Your task to perform on an android device: Turn off the flashlight Image 0: 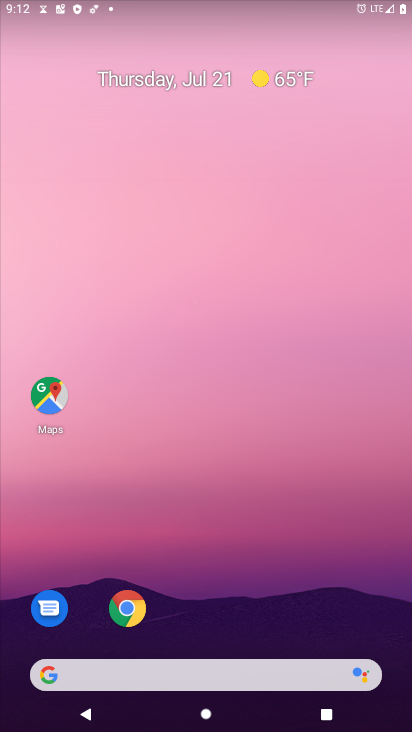
Step 0: drag from (230, 653) to (250, 233)
Your task to perform on an android device: Turn off the flashlight Image 1: 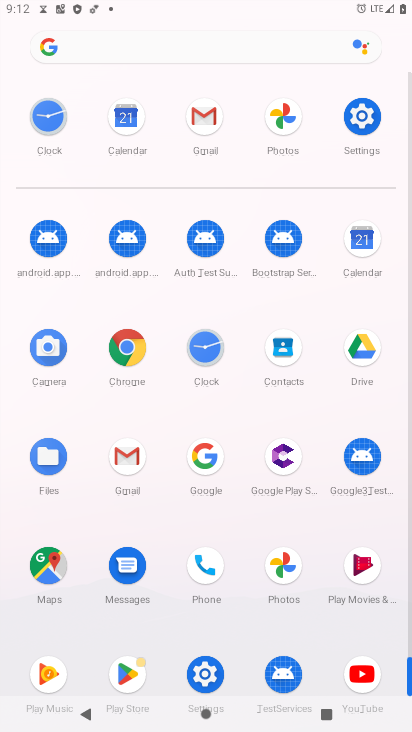
Step 1: click (358, 110)
Your task to perform on an android device: Turn off the flashlight Image 2: 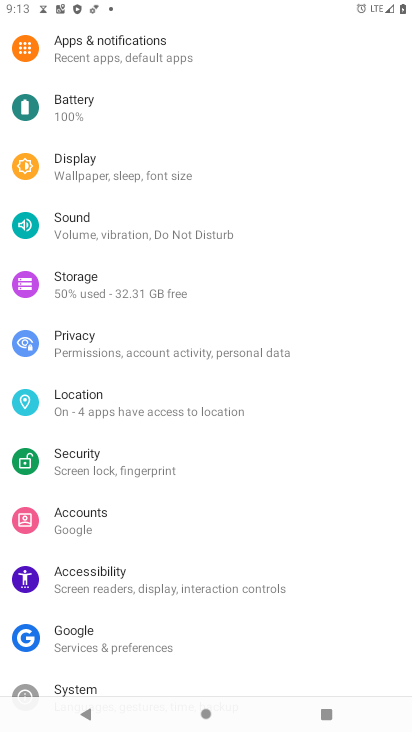
Step 2: click (116, 294)
Your task to perform on an android device: Turn off the flashlight Image 3: 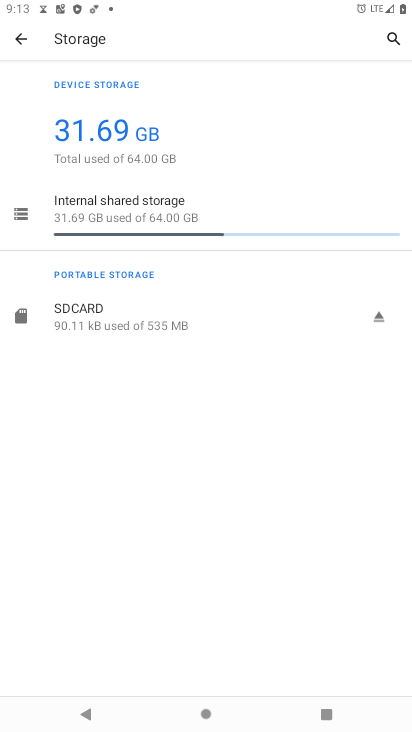
Step 3: press back button
Your task to perform on an android device: Turn off the flashlight Image 4: 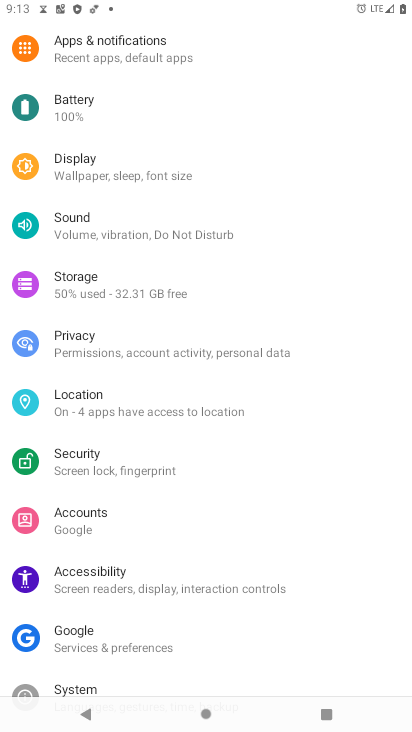
Step 4: click (140, 240)
Your task to perform on an android device: Turn off the flashlight Image 5: 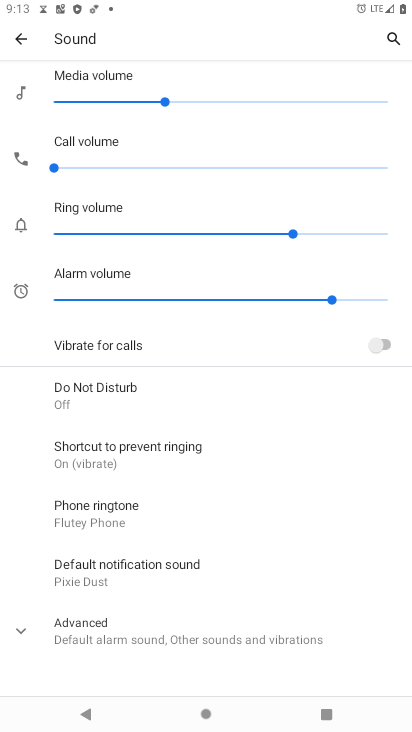
Step 5: drag from (167, 445) to (216, 363)
Your task to perform on an android device: Turn off the flashlight Image 6: 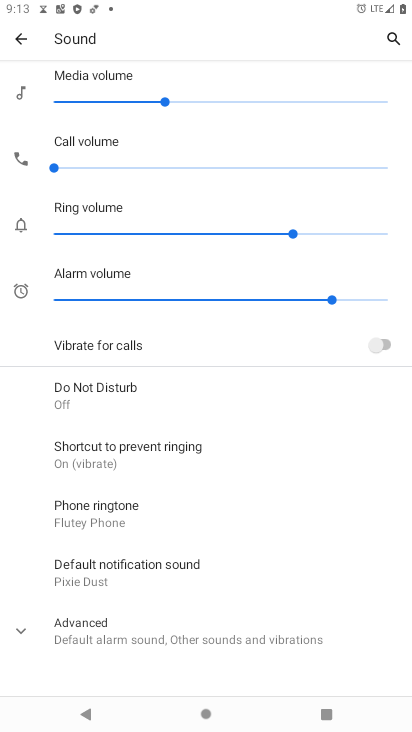
Step 6: click (151, 634)
Your task to perform on an android device: Turn off the flashlight Image 7: 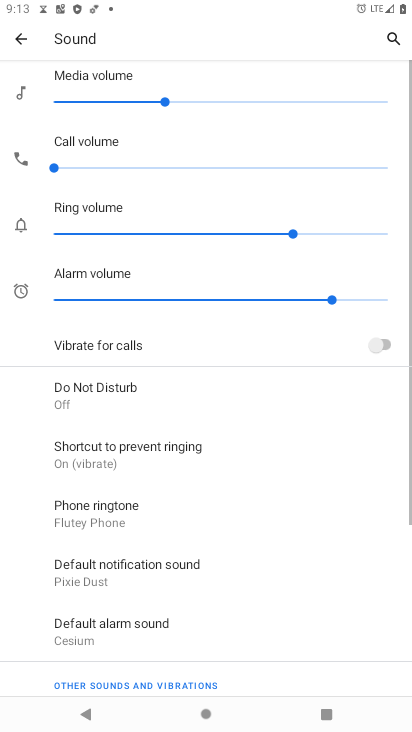
Step 7: drag from (151, 633) to (243, 426)
Your task to perform on an android device: Turn off the flashlight Image 8: 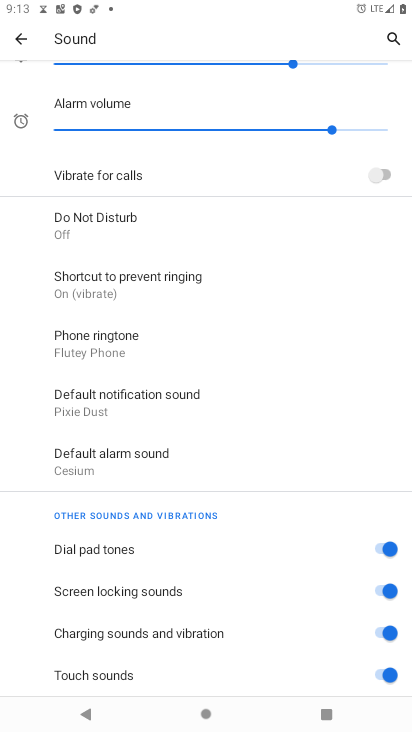
Step 8: drag from (168, 645) to (222, 537)
Your task to perform on an android device: Turn off the flashlight Image 9: 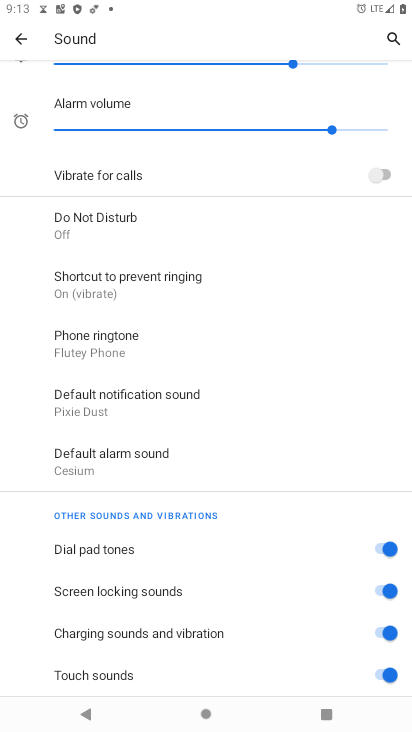
Step 9: press back button
Your task to perform on an android device: Turn off the flashlight Image 10: 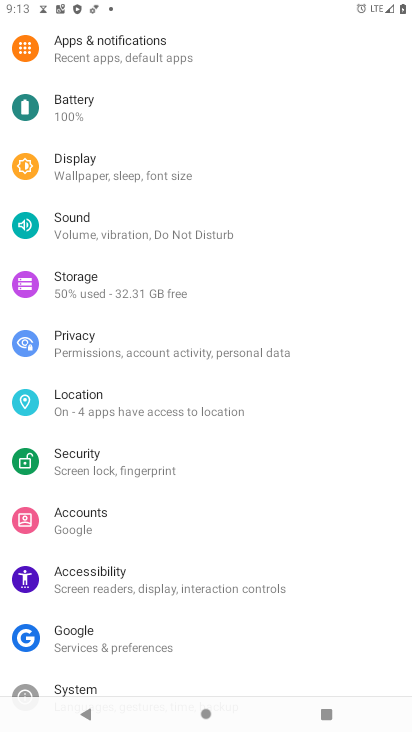
Step 10: click (114, 181)
Your task to perform on an android device: Turn off the flashlight Image 11: 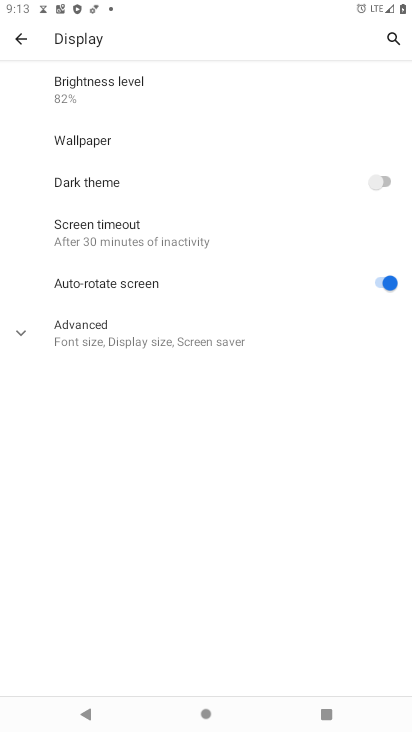
Step 11: click (395, 35)
Your task to perform on an android device: Turn off the flashlight Image 12: 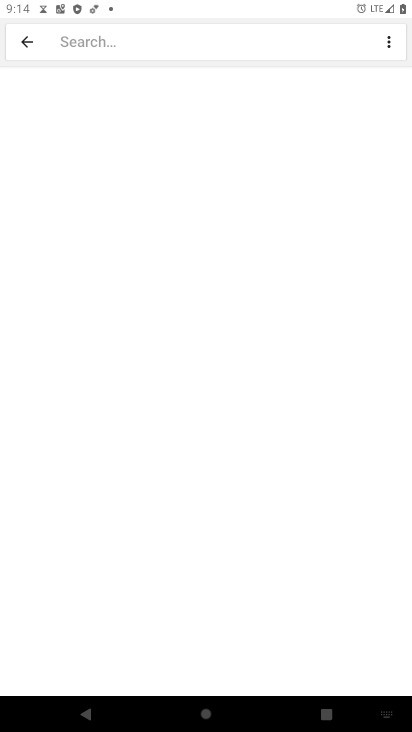
Step 12: type "flashlight"
Your task to perform on an android device: Turn off the flashlight Image 13: 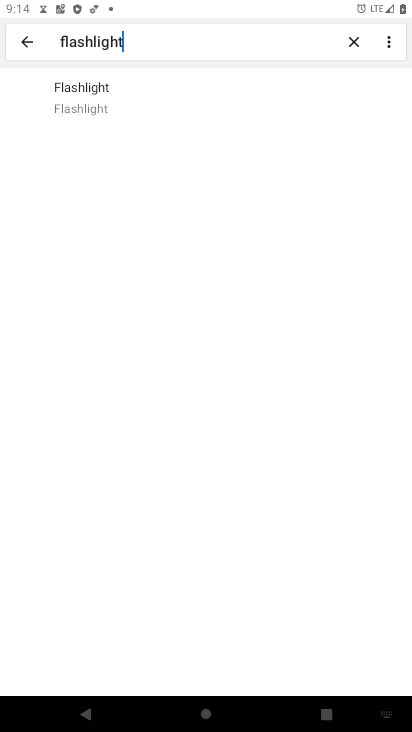
Step 13: click (91, 79)
Your task to perform on an android device: Turn off the flashlight Image 14: 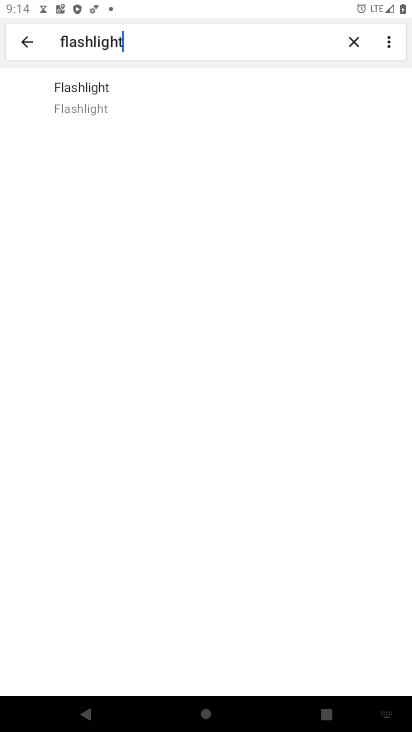
Step 14: task complete